Your task to perform on an android device: turn notification dots off Image 0: 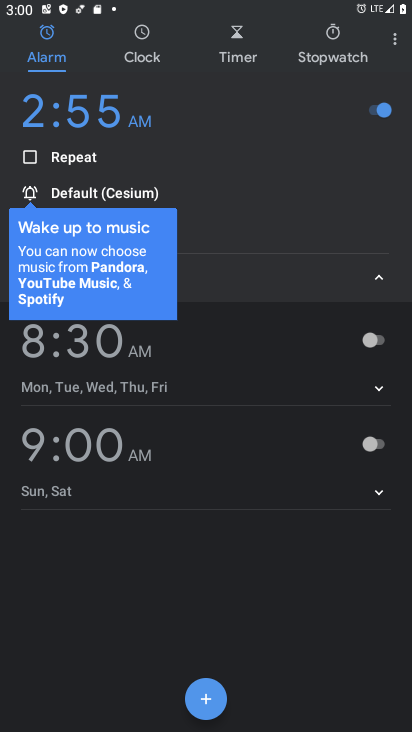
Step 0: press home button
Your task to perform on an android device: turn notification dots off Image 1: 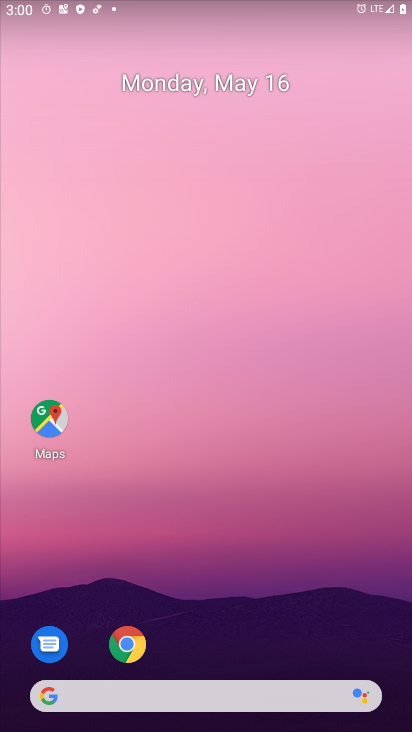
Step 1: drag from (238, 627) to (214, 57)
Your task to perform on an android device: turn notification dots off Image 2: 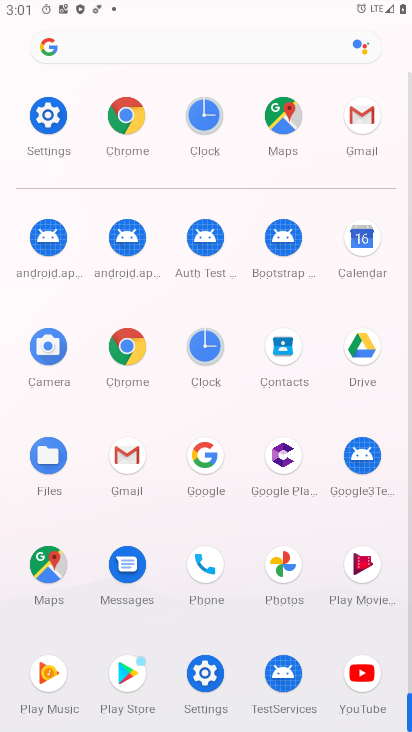
Step 2: click (43, 135)
Your task to perform on an android device: turn notification dots off Image 3: 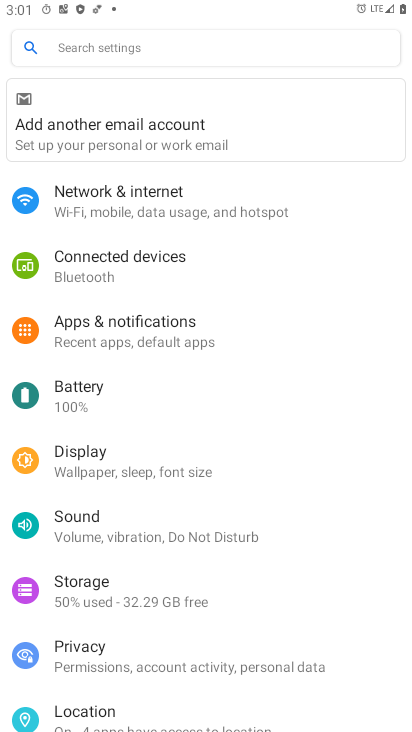
Step 3: drag from (223, 388) to (240, 307)
Your task to perform on an android device: turn notification dots off Image 4: 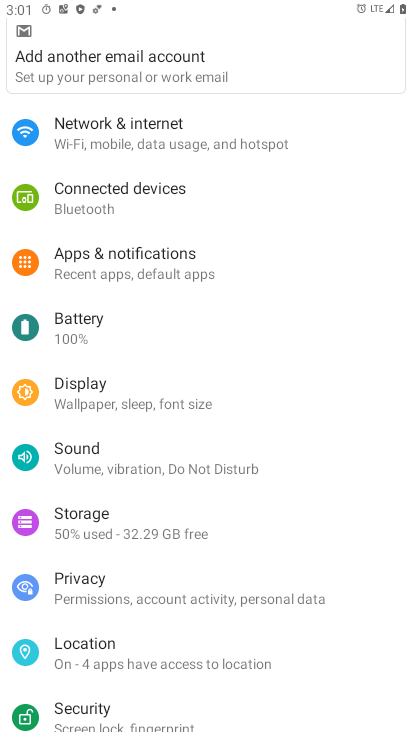
Step 4: click (204, 259)
Your task to perform on an android device: turn notification dots off Image 5: 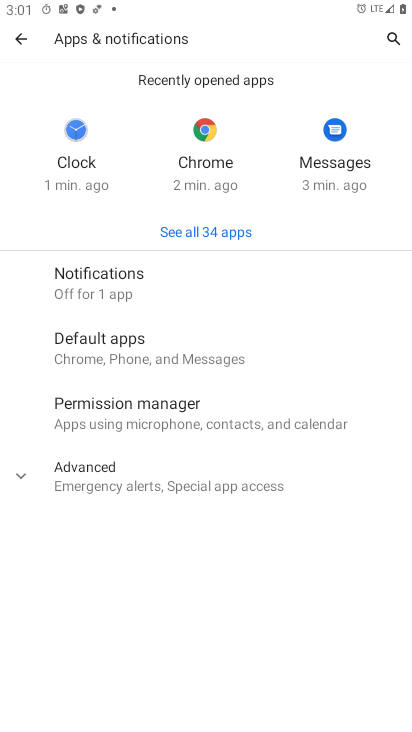
Step 5: click (158, 288)
Your task to perform on an android device: turn notification dots off Image 6: 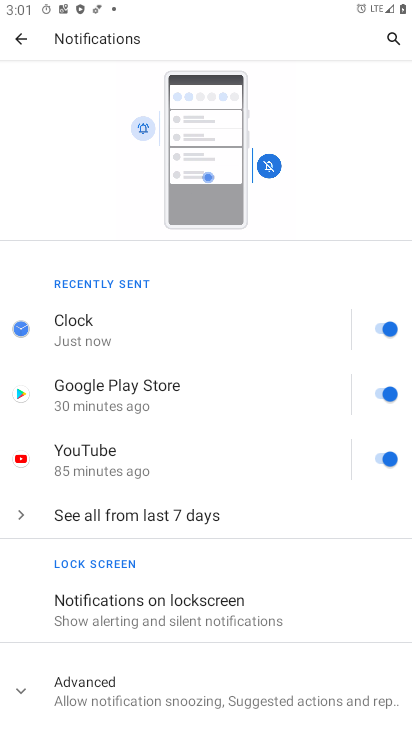
Step 6: drag from (224, 627) to (273, 304)
Your task to perform on an android device: turn notification dots off Image 7: 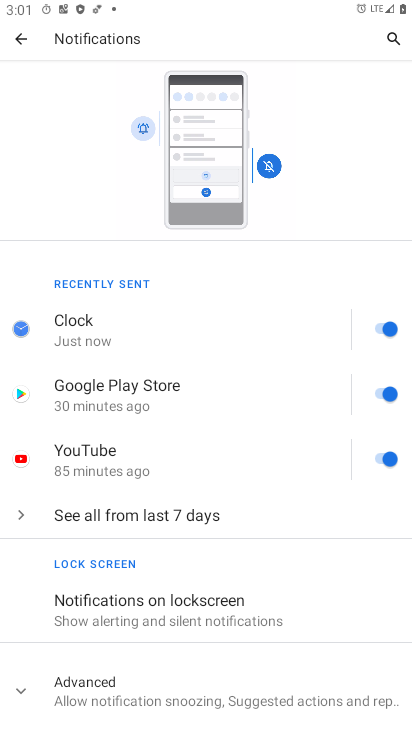
Step 7: click (206, 660)
Your task to perform on an android device: turn notification dots off Image 8: 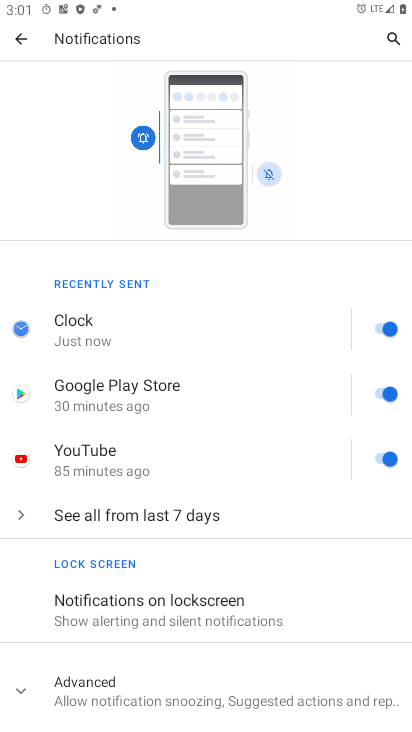
Step 8: click (196, 693)
Your task to perform on an android device: turn notification dots off Image 9: 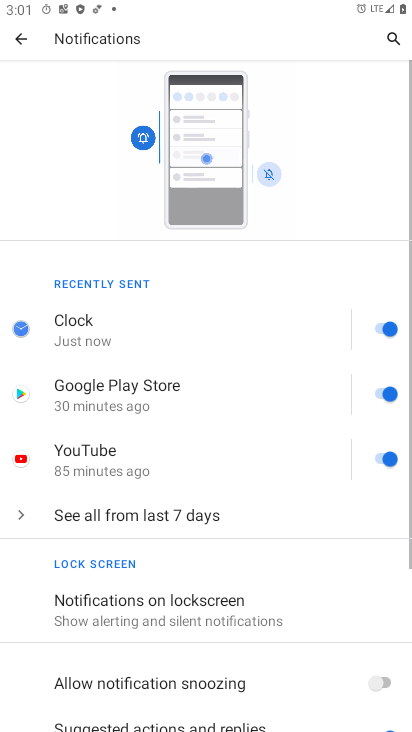
Step 9: drag from (221, 592) to (241, 189)
Your task to perform on an android device: turn notification dots off Image 10: 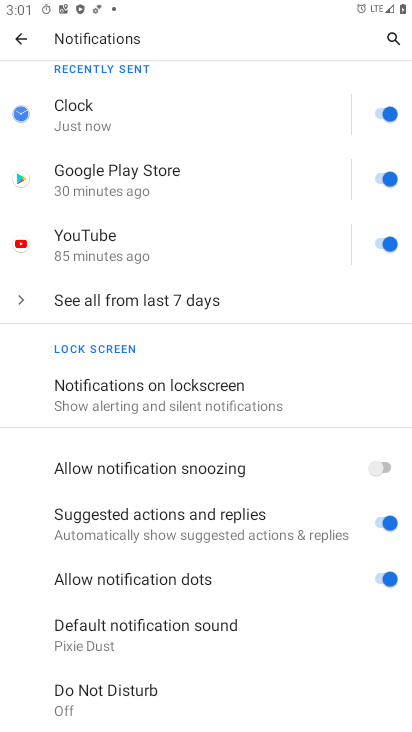
Step 10: click (373, 582)
Your task to perform on an android device: turn notification dots off Image 11: 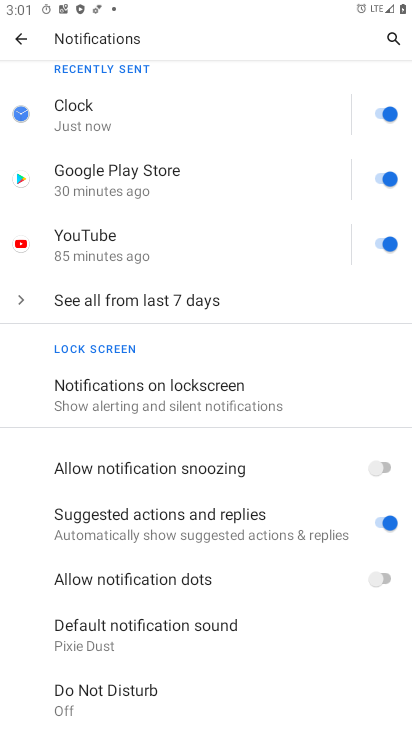
Step 11: task complete